Your task to perform on an android device: open app "Nova Launcher" (install if not already installed) Image 0: 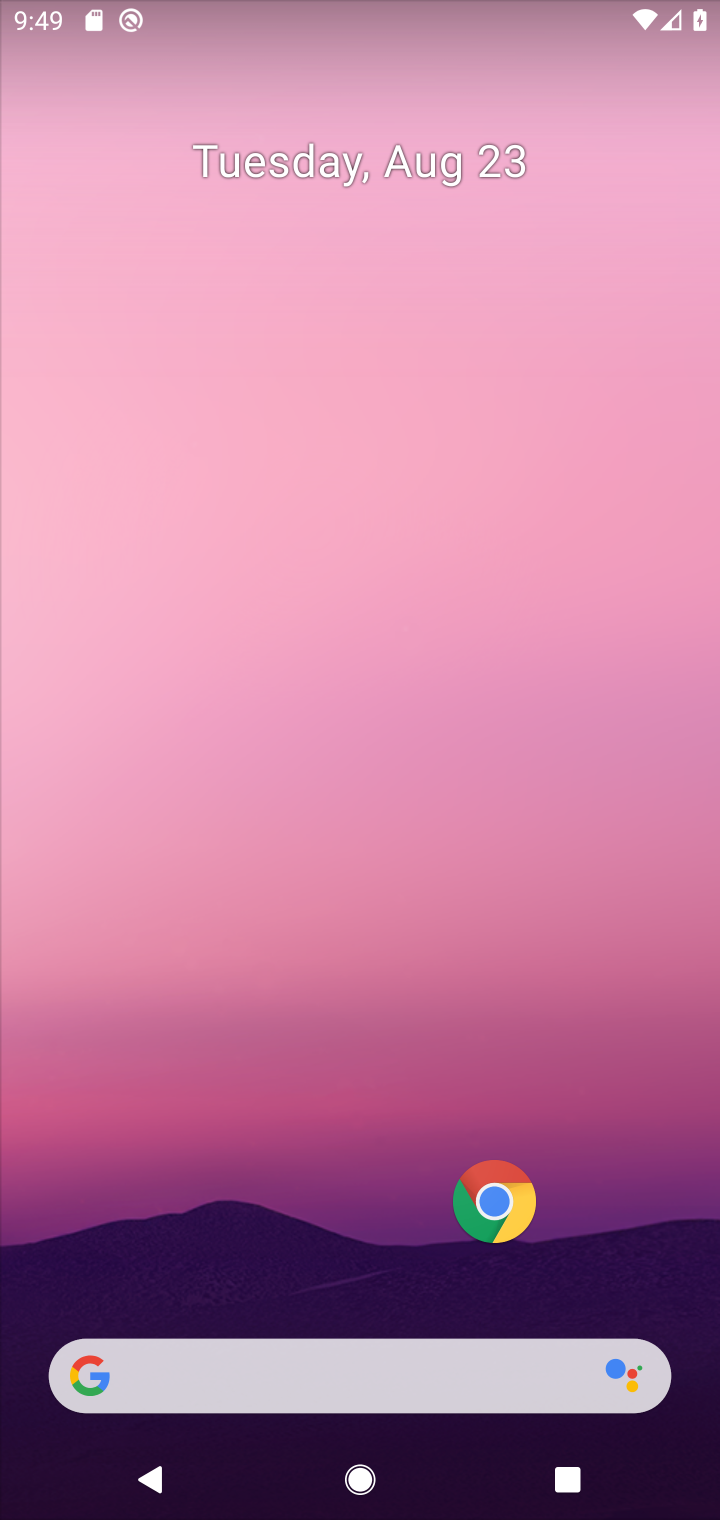
Step 0: drag from (366, 1334) to (455, 661)
Your task to perform on an android device: open app "Nova Launcher" (install if not already installed) Image 1: 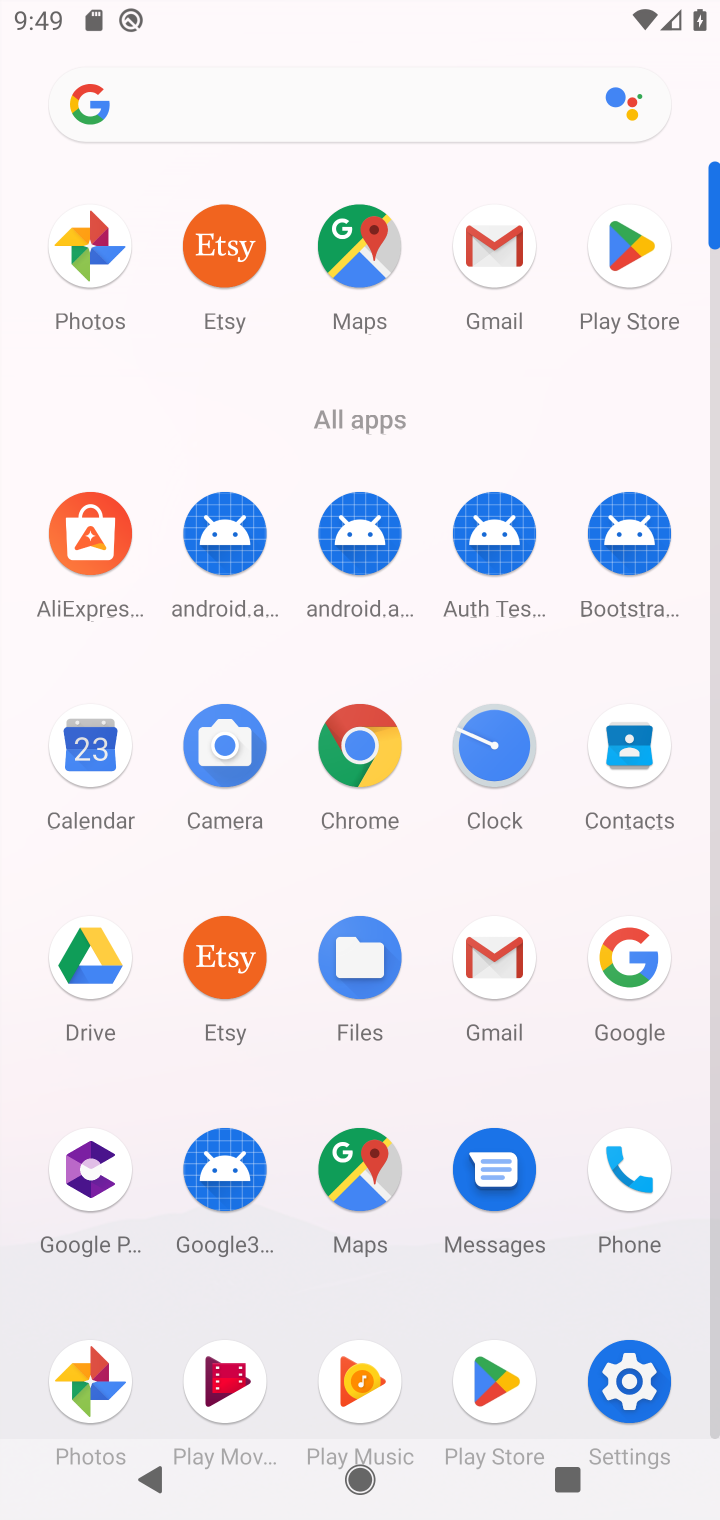
Step 1: click (605, 241)
Your task to perform on an android device: open app "Nova Launcher" (install if not already installed) Image 2: 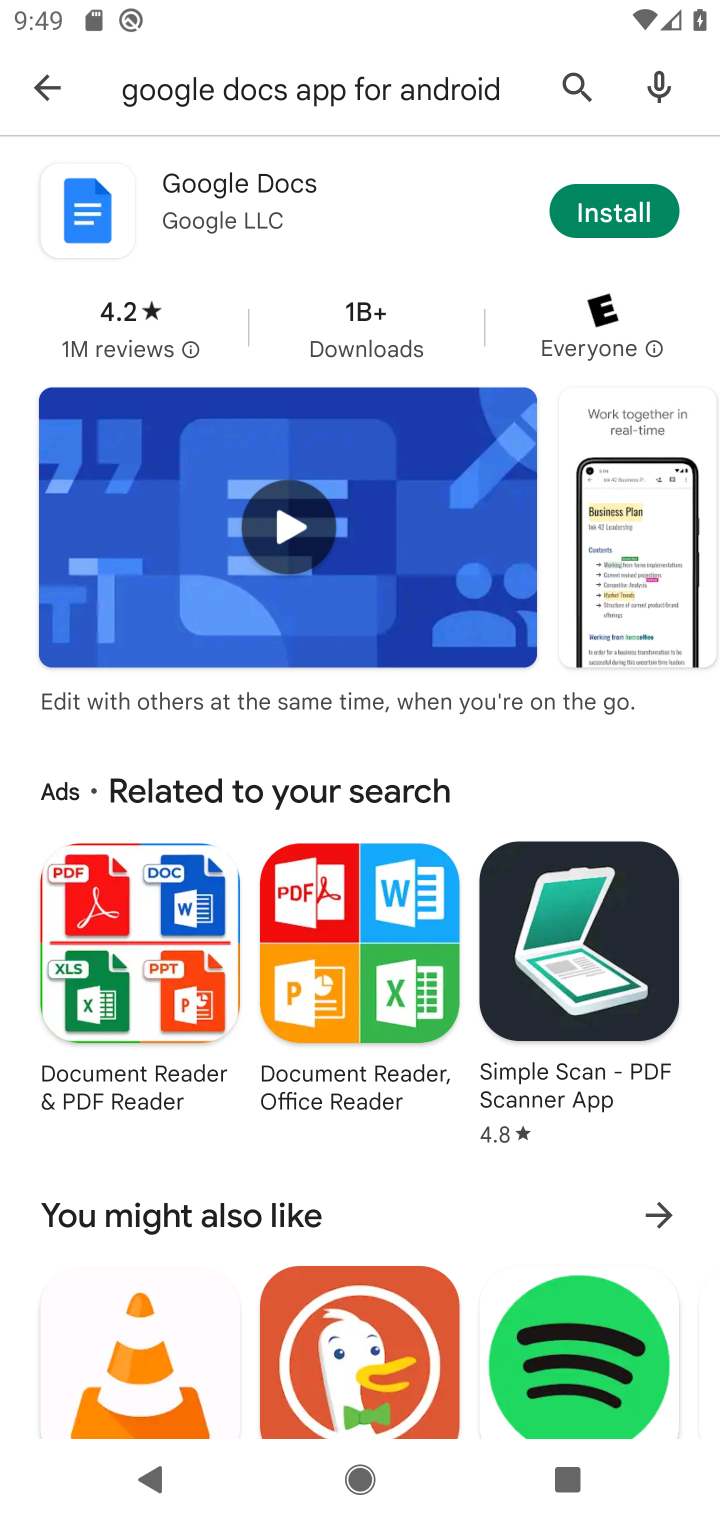
Step 2: click (556, 67)
Your task to perform on an android device: open app "Nova Launcher" (install if not already installed) Image 3: 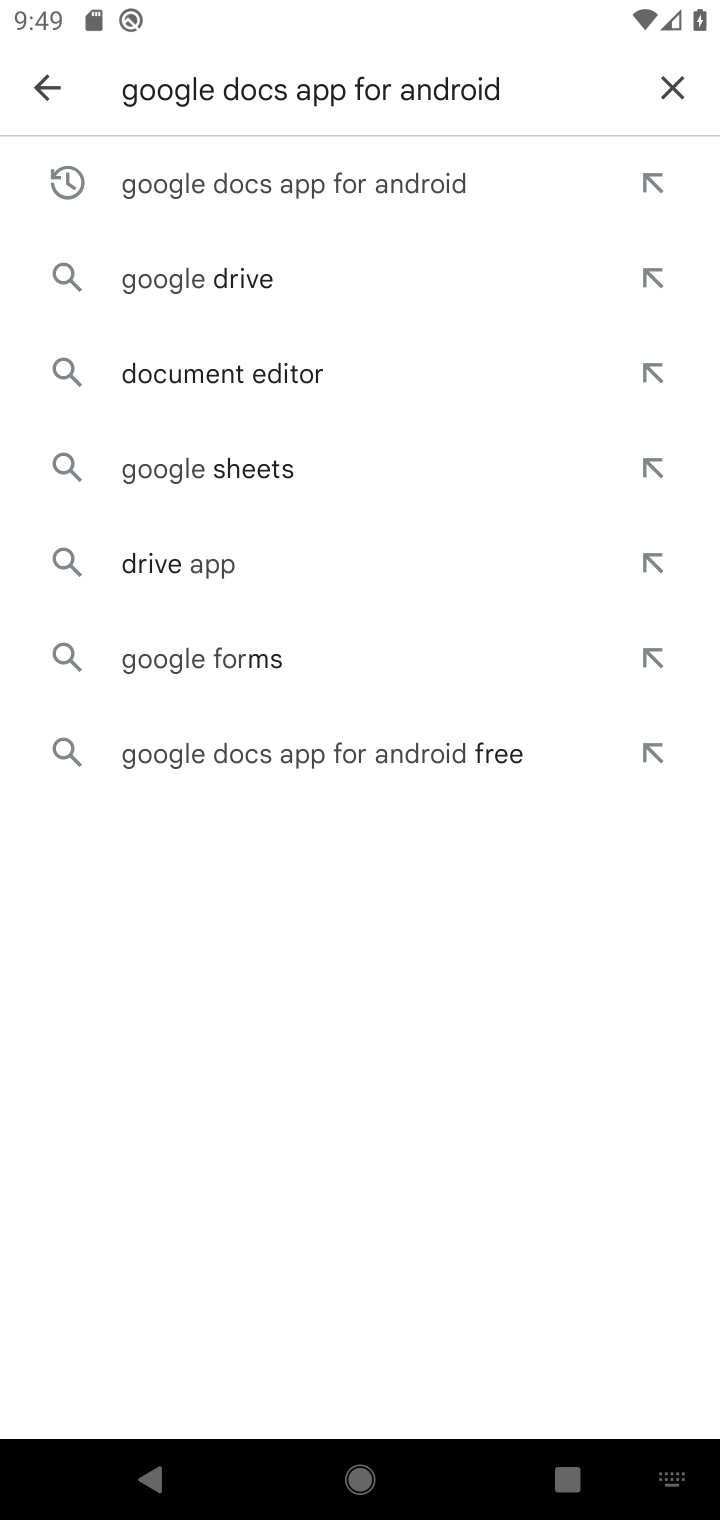
Step 3: click (687, 86)
Your task to perform on an android device: open app "Nova Launcher" (install if not already installed) Image 4: 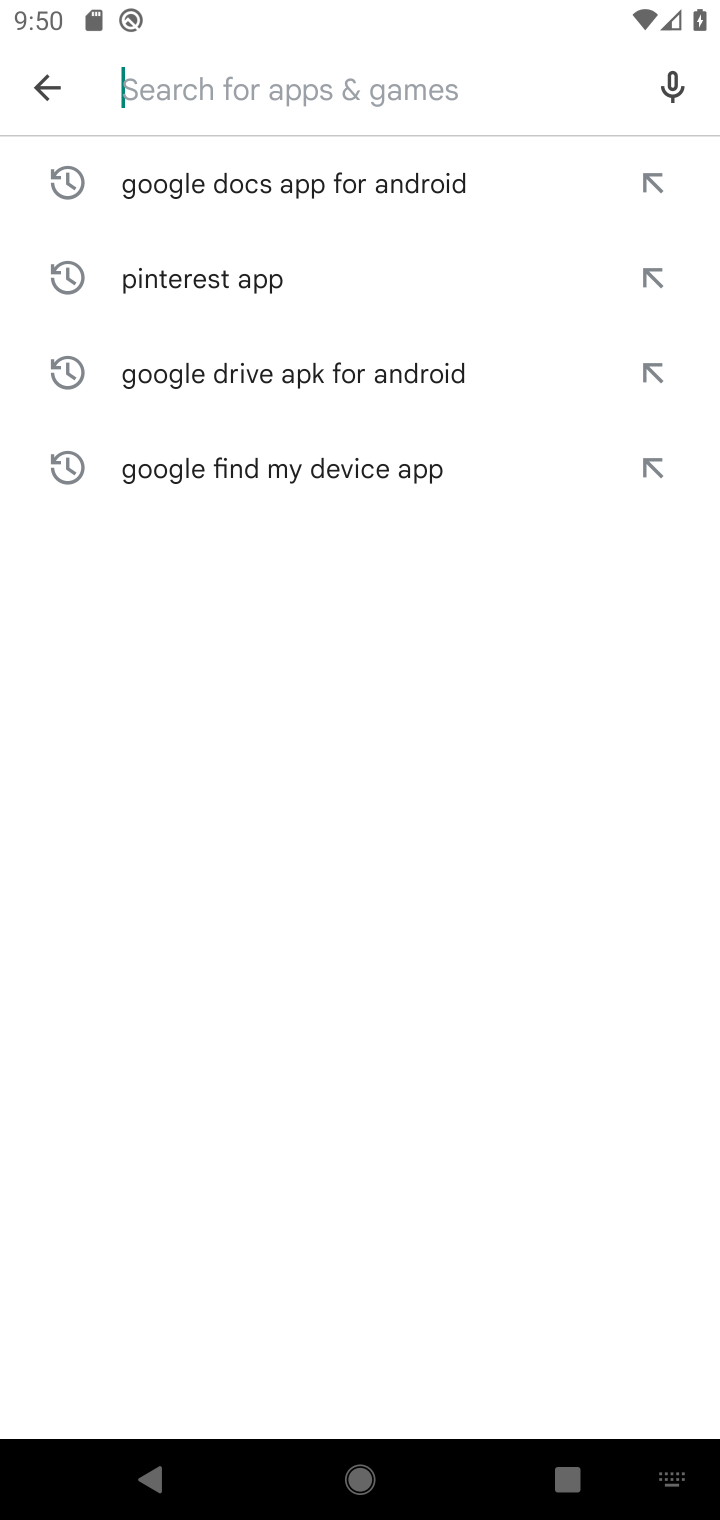
Step 4: click (337, 89)
Your task to perform on an android device: open app "Nova Launcher" (install if not already installed) Image 5: 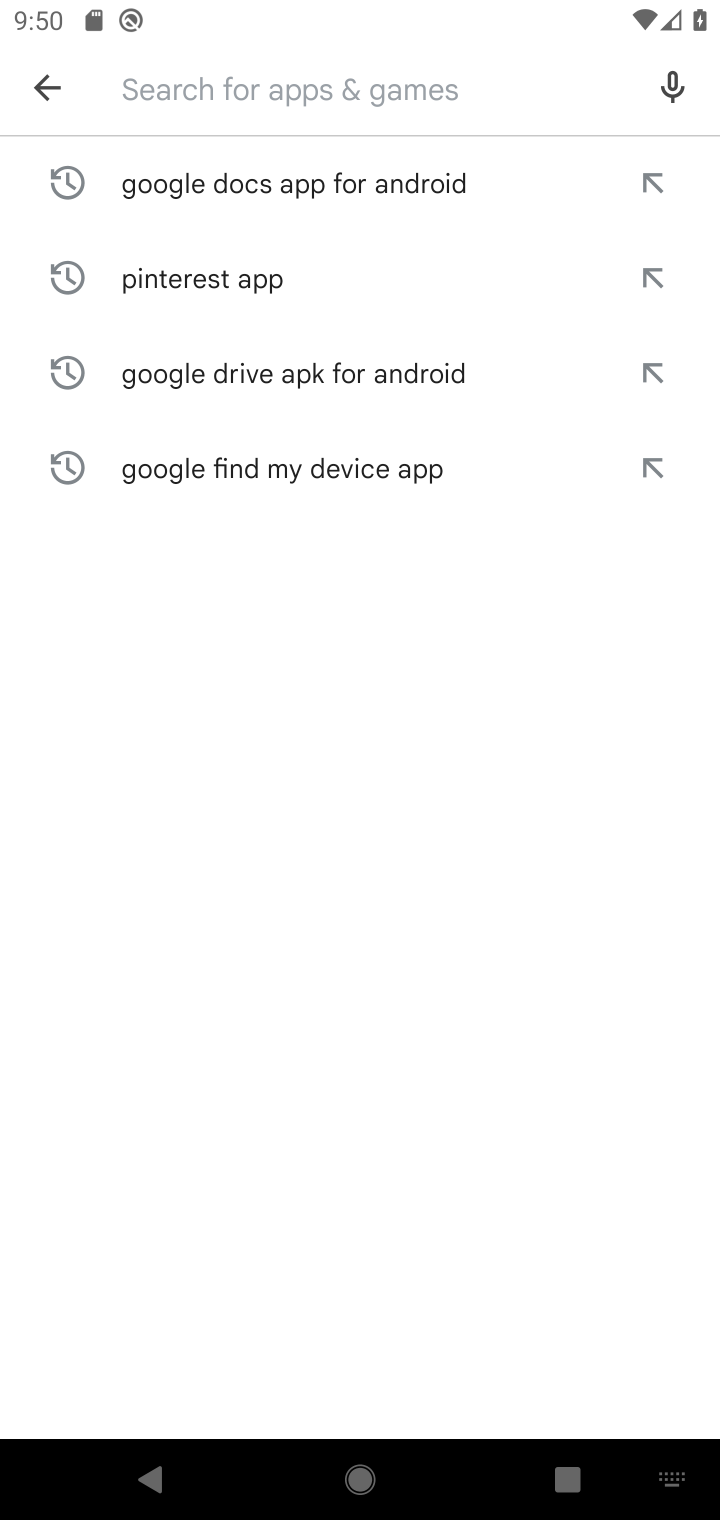
Step 5: type "Nova Launcher "
Your task to perform on an android device: open app "Nova Launcher" (install if not already installed) Image 6: 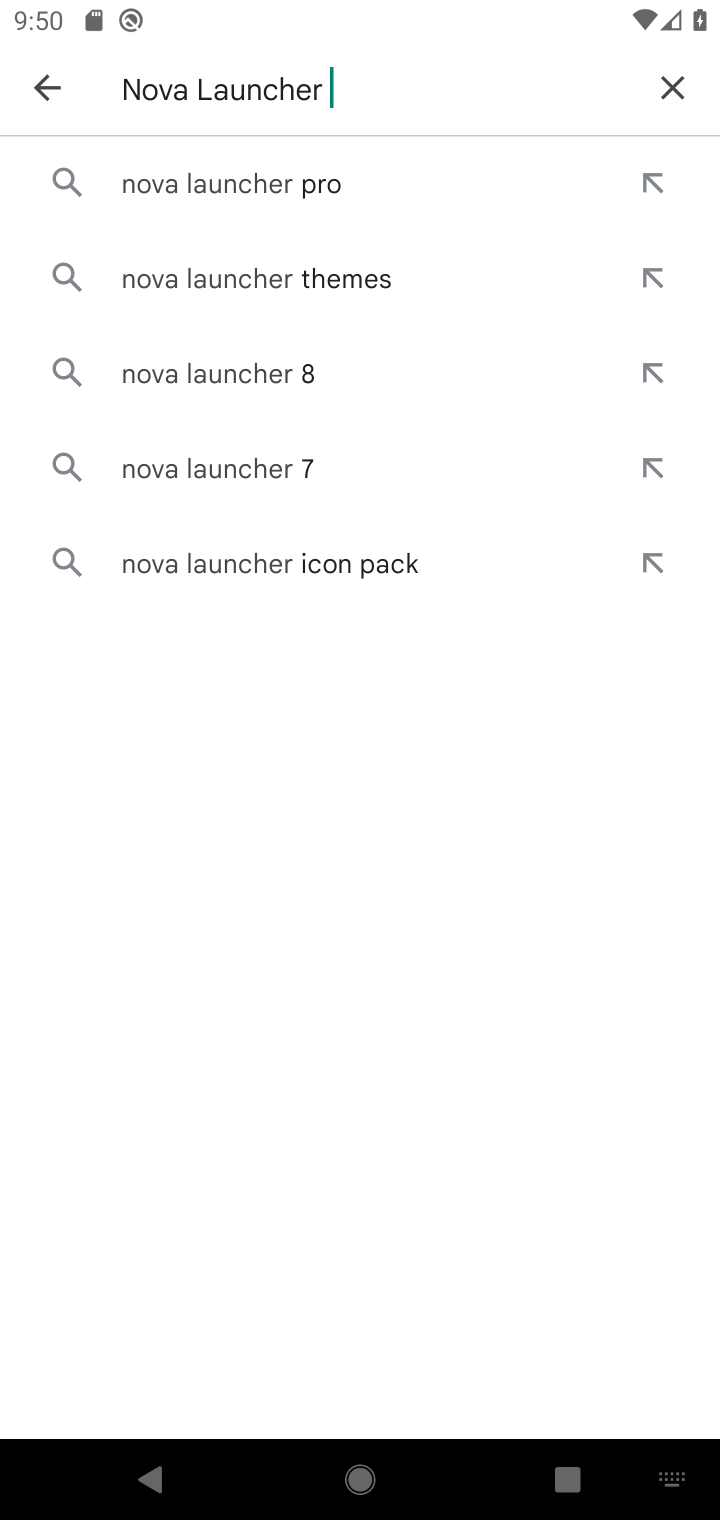
Step 6: click (252, 205)
Your task to perform on an android device: open app "Nova Launcher" (install if not already installed) Image 7: 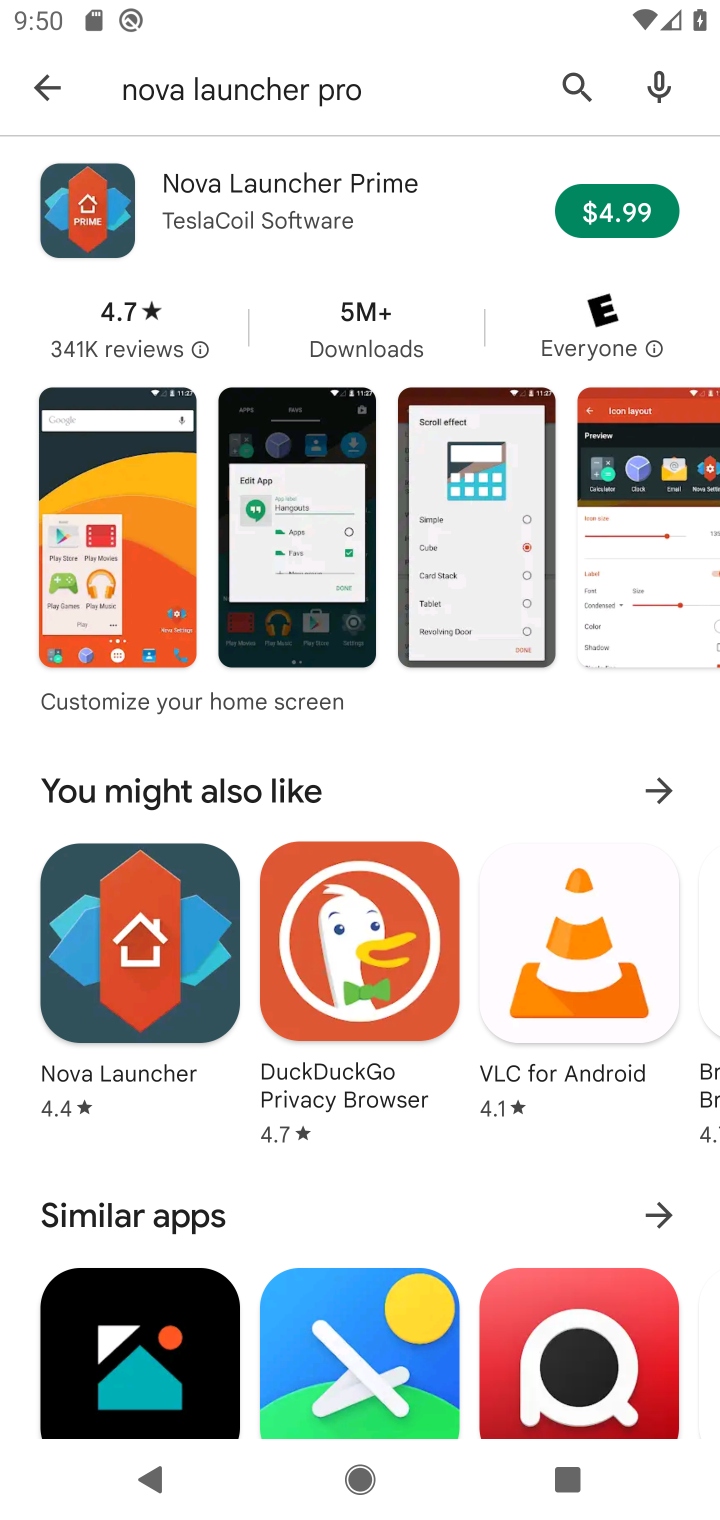
Step 7: task complete